Your task to perform on an android device: refresh tabs in the chrome app Image 0: 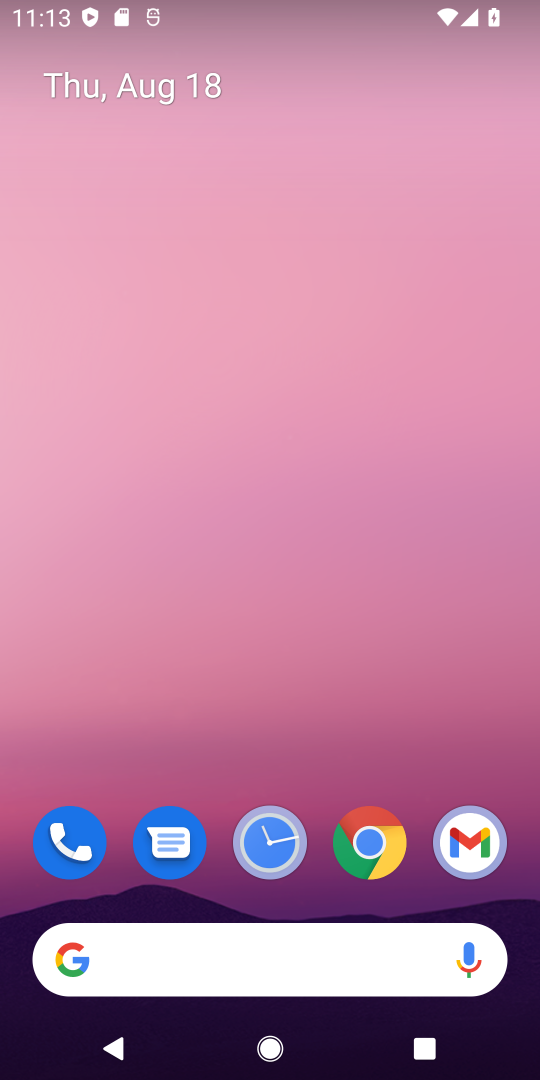
Step 0: click (349, 844)
Your task to perform on an android device: refresh tabs in the chrome app Image 1: 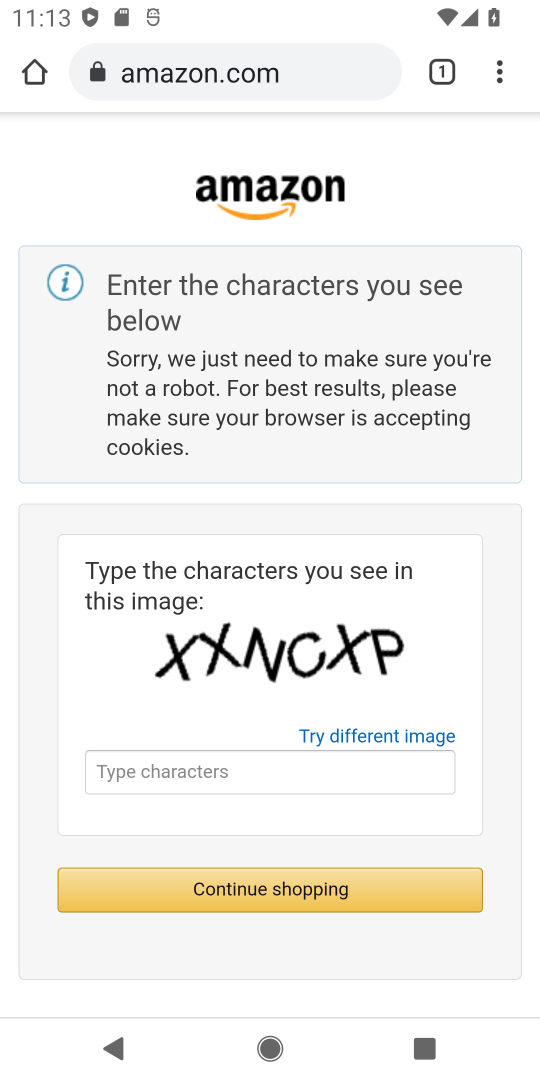
Step 1: click (522, 59)
Your task to perform on an android device: refresh tabs in the chrome app Image 2: 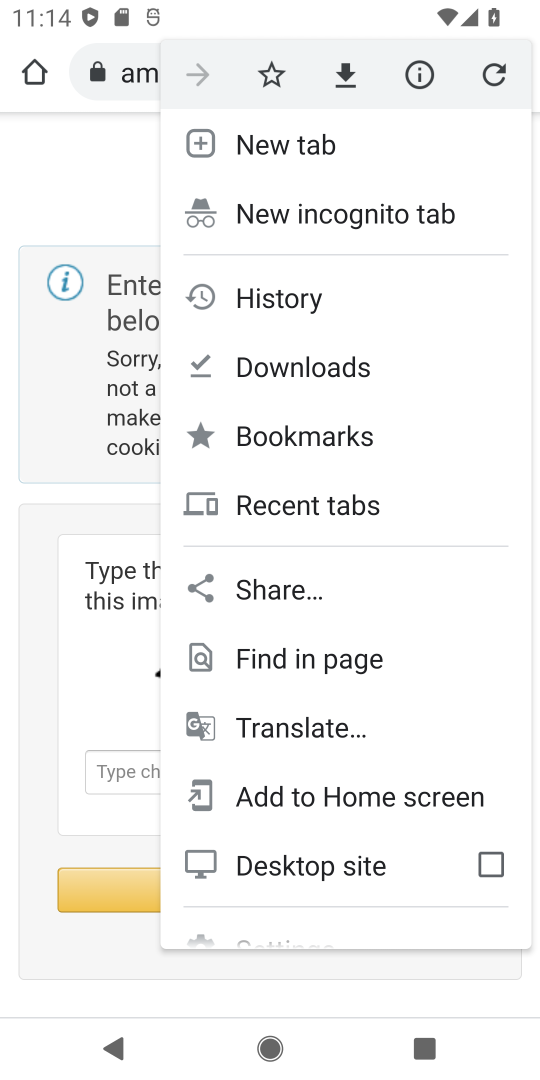
Step 2: click (491, 85)
Your task to perform on an android device: refresh tabs in the chrome app Image 3: 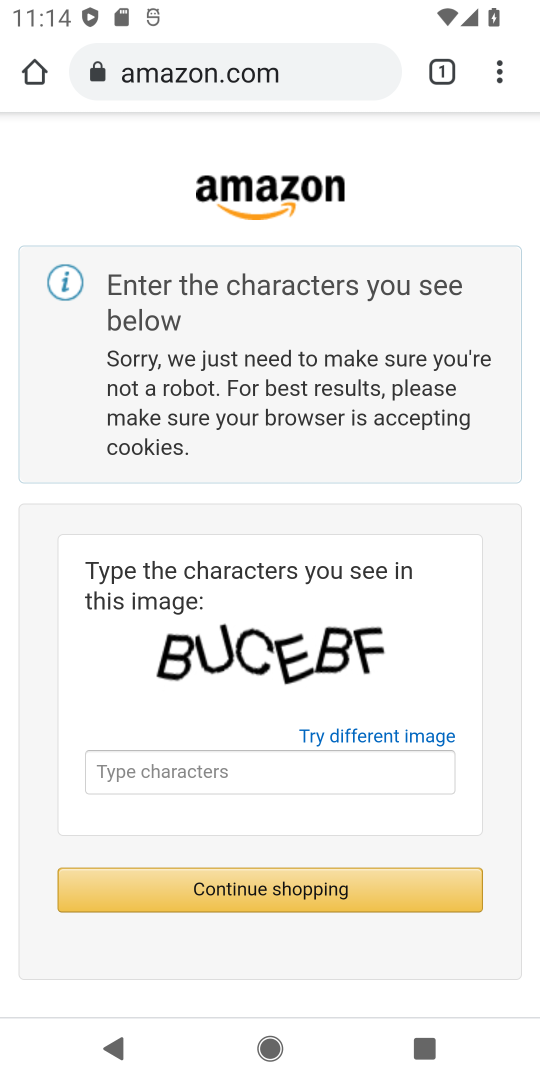
Step 3: task complete